Your task to perform on an android device: Open the map Image 0: 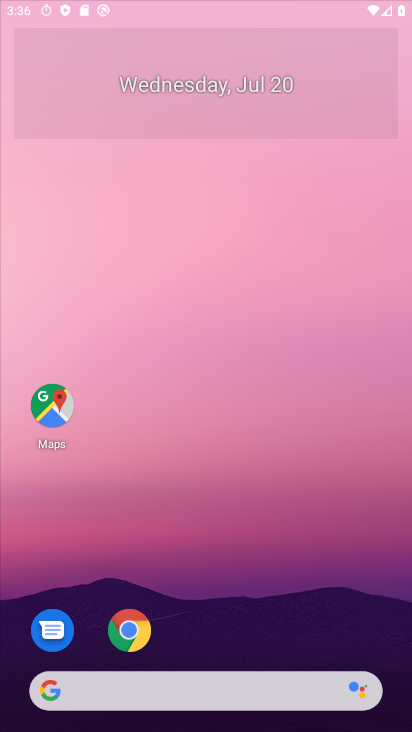
Step 0: press home button
Your task to perform on an android device: Open the map Image 1: 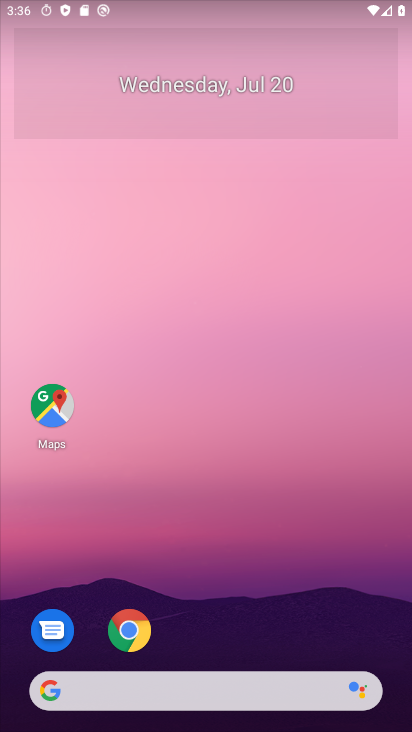
Step 1: drag from (287, 594) to (326, 85)
Your task to perform on an android device: Open the map Image 2: 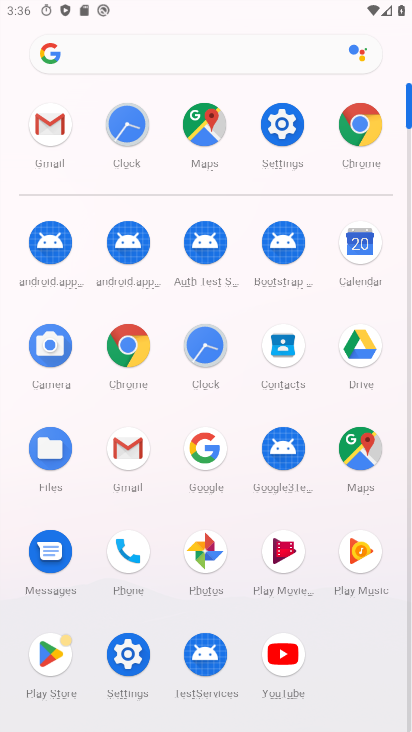
Step 2: click (364, 453)
Your task to perform on an android device: Open the map Image 3: 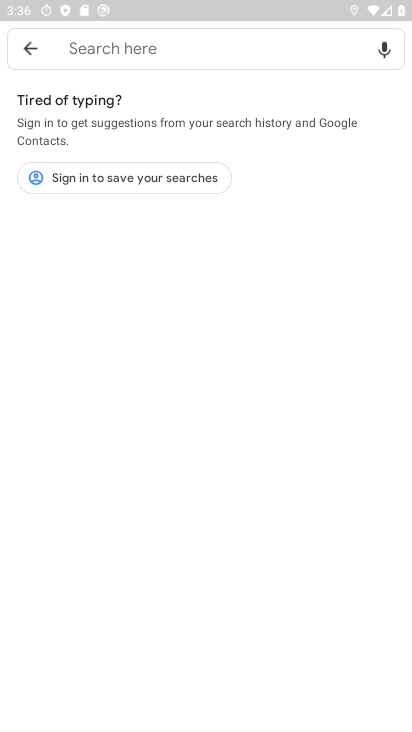
Step 3: click (28, 47)
Your task to perform on an android device: Open the map Image 4: 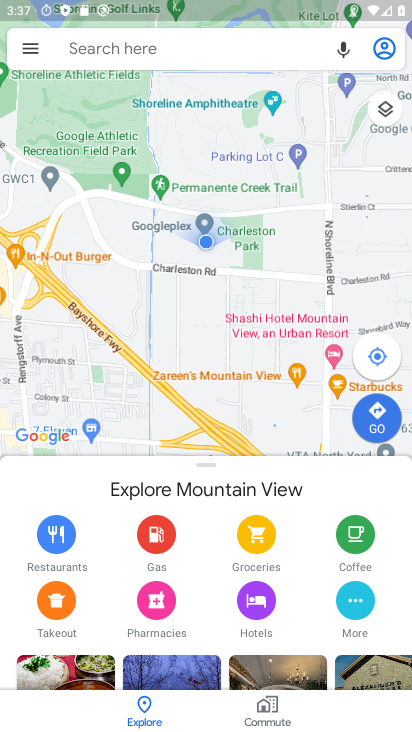
Step 4: task complete